Your task to perform on an android device: turn vacation reply on in the gmail app Image 0: 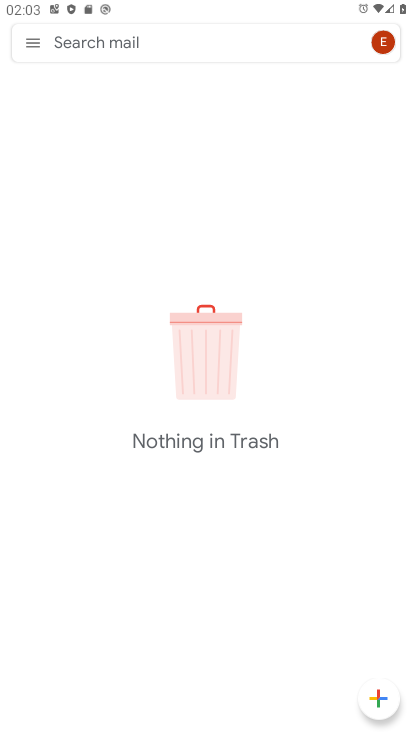
Step 0: click (18, 35)
Your task to perform on an android device: turn vacation reply on in the gmail app Image 1: 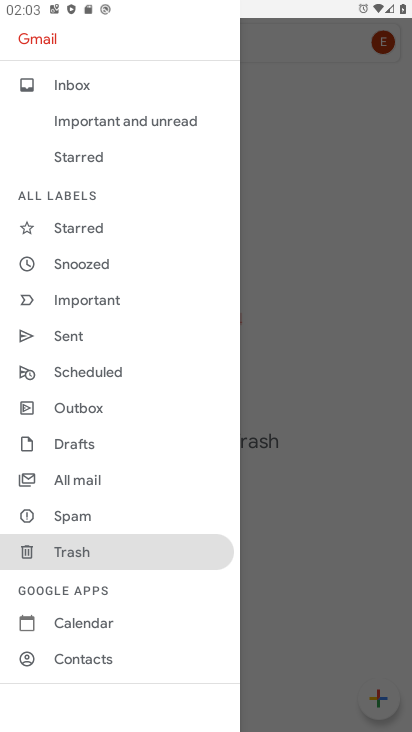
Step 1: drag from (78, 641) to (195, 230)
Your task to perform on an android device: turn vacation reply on in the gmail app Image 2: 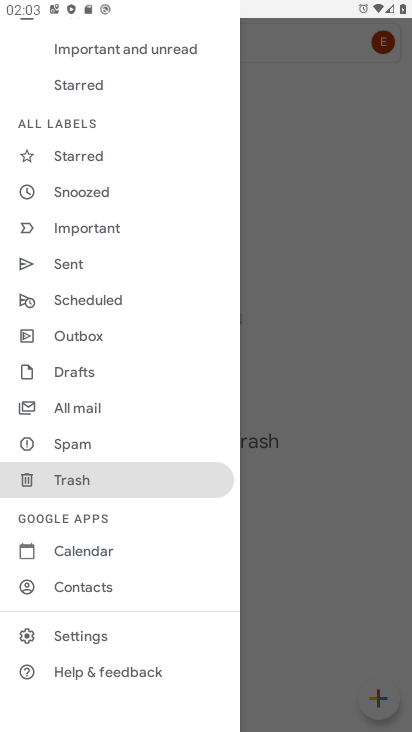
Step 2: click (91, 628)
Your task to perform on an android device: turn vacation reply on in the gmail app Image 3: 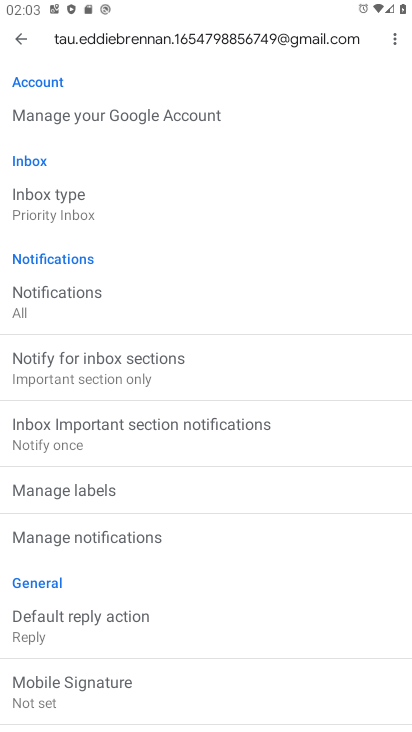
Step 3: drag from (197, 605) to (231, 178)
Your task to perform on an android device: turn vacation reply on in the gmail app Image 4: 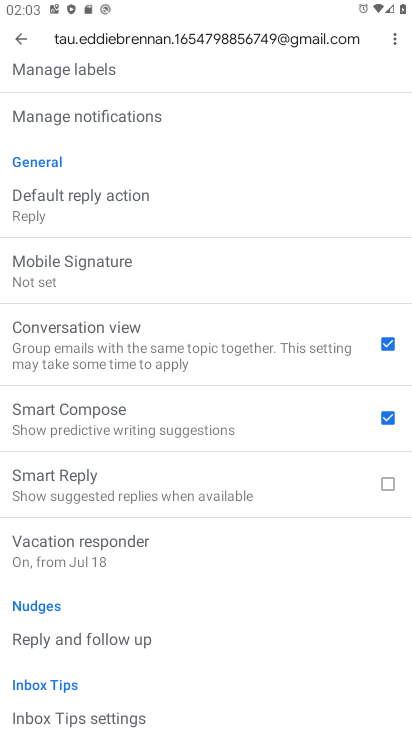
Step 4: click (111, 561)
Your task to perform on an android device: turn vacation reply on in the gmail app Image 5: 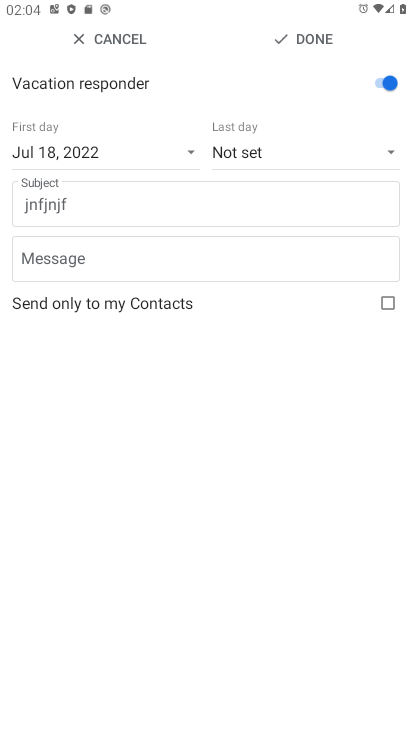
Step 5: task complete